Your task to perform on an android device: Open Amazon Image 0: 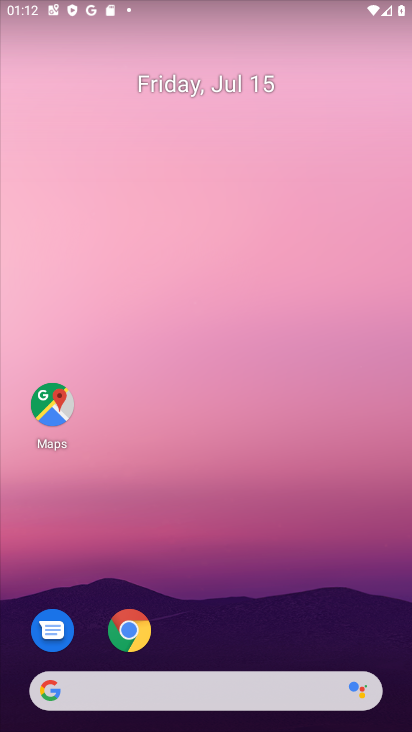
Step 0: click (135, 625)
Your task to perform on an android device: Open Amazon Image 1: 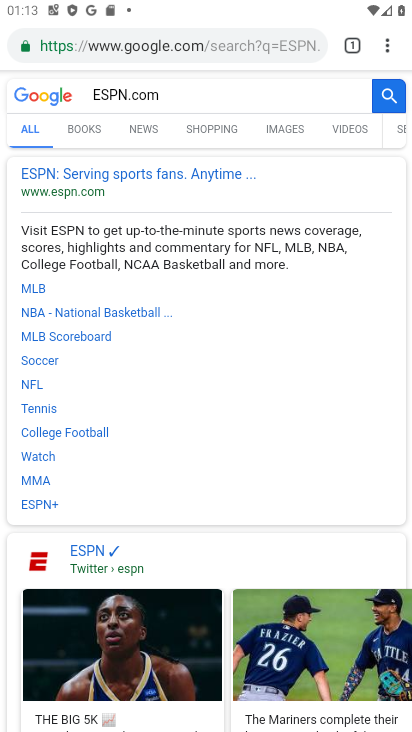
Step 1: click (310, 47)
Your task to perform on an android device: Open Amazon Image 2: 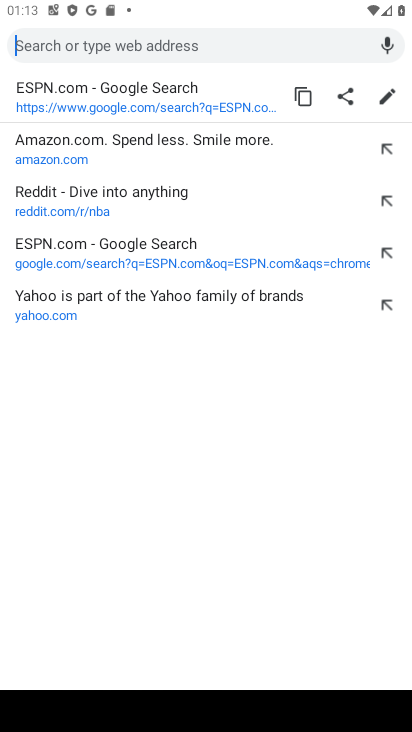
Step 2: type "amazon"
Your task to perform on an android device: Open Amazon Image 3: 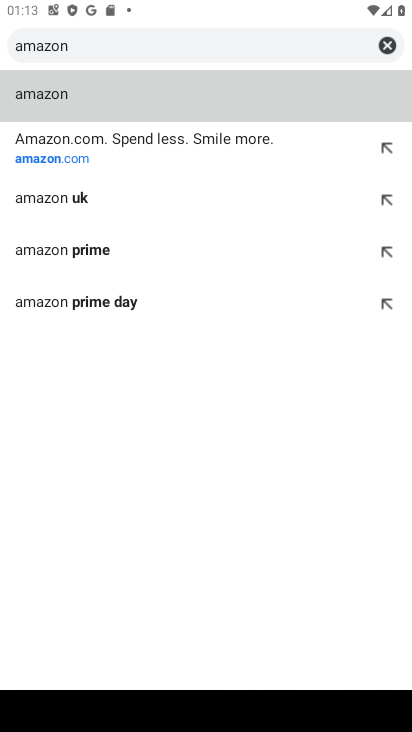
Step 3: click (197, 131)
Your task to perform on an android device: Open Amazon Image 4: 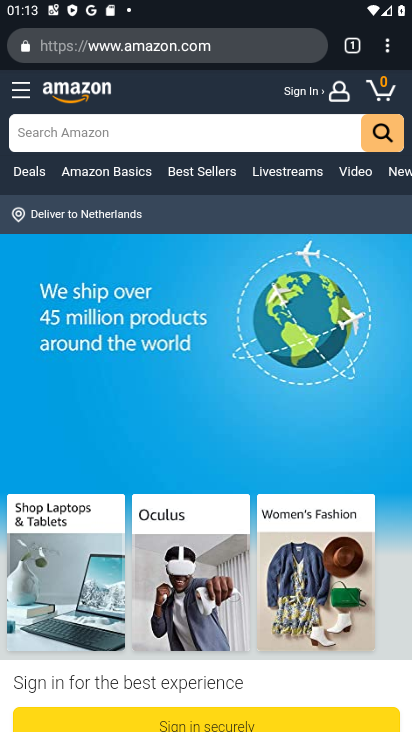
Step 4: task complete